Your task to perform on an android device: Go to Amazon Image 0: 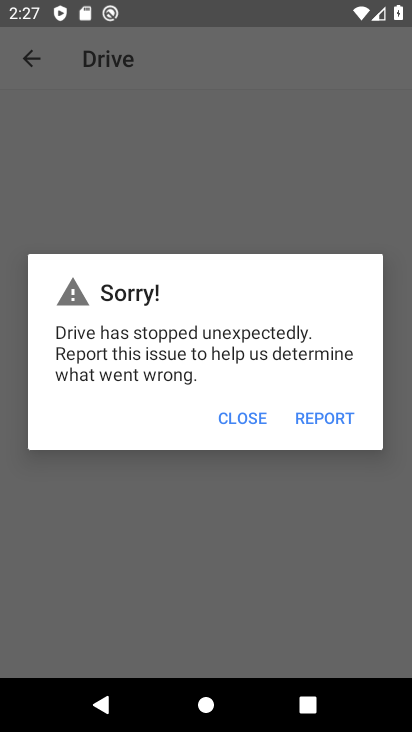
Step 0: press home button
Your task to perform on an android device: Go to Amazon Image 1: 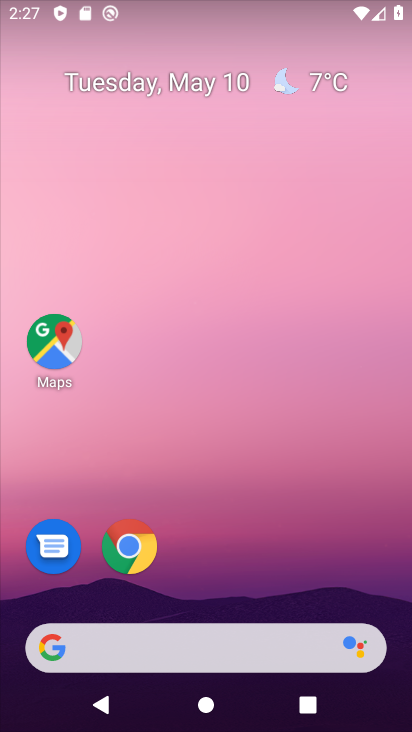
Step 1: click (135, 554)
Your task to perform on an android device: Go to Amazon Image 2: 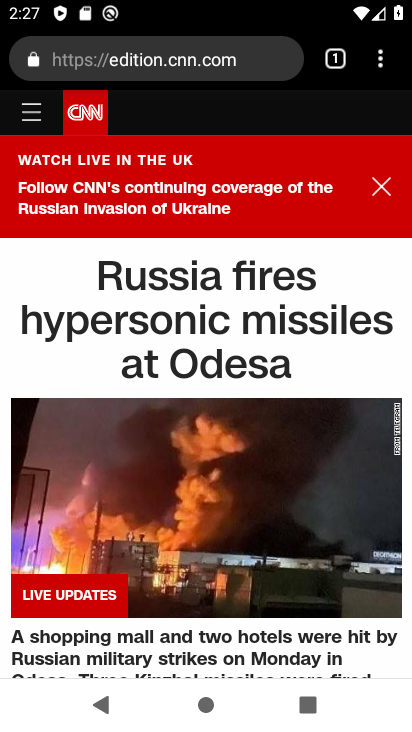
Step 2: click (162, 61)
Your task to perform on an android device: Go to Amazon Image 3: 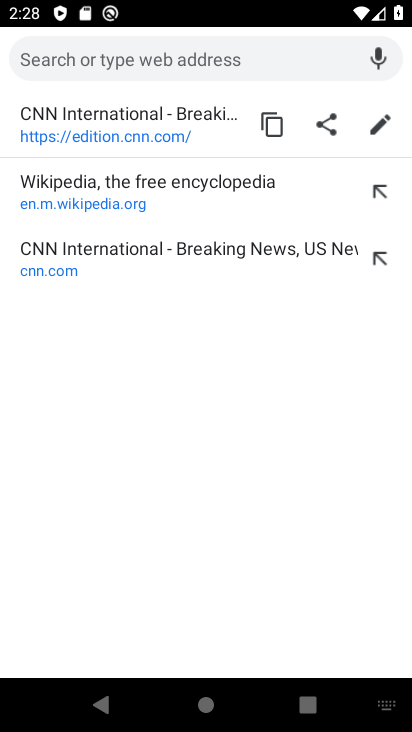
Step 3: type "amazon"
Your task to perform on an android device: Go to Amazon Image 4: 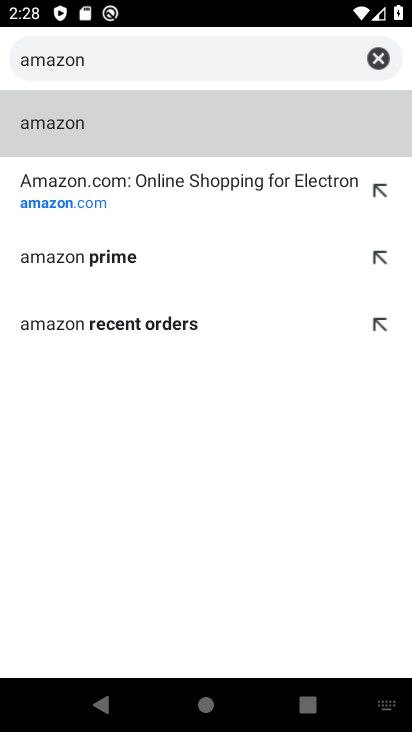
Step 4: click (92, 133)
Your task to perform on an android device: Go to Amazon Image 5: 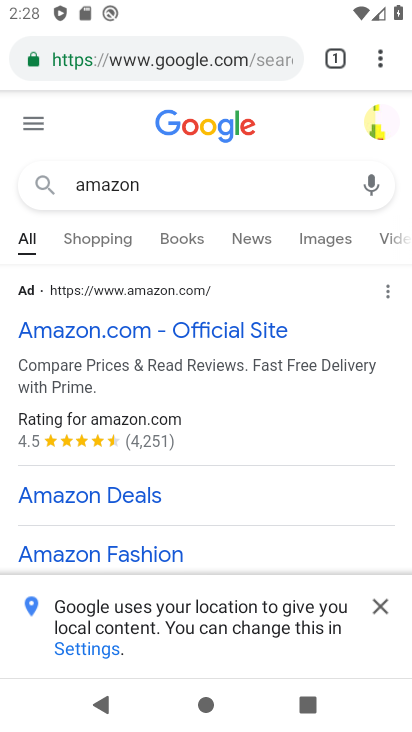
Step 5: click (113, 339)
Your task to perform on an android device: Go to Amazon Image 6: 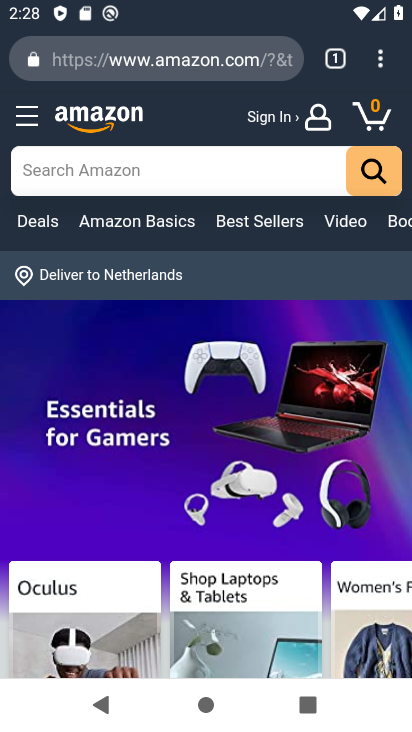
Step 6: task complete